Your task to perform on an android device: change your default location settings in chrome Image 0: 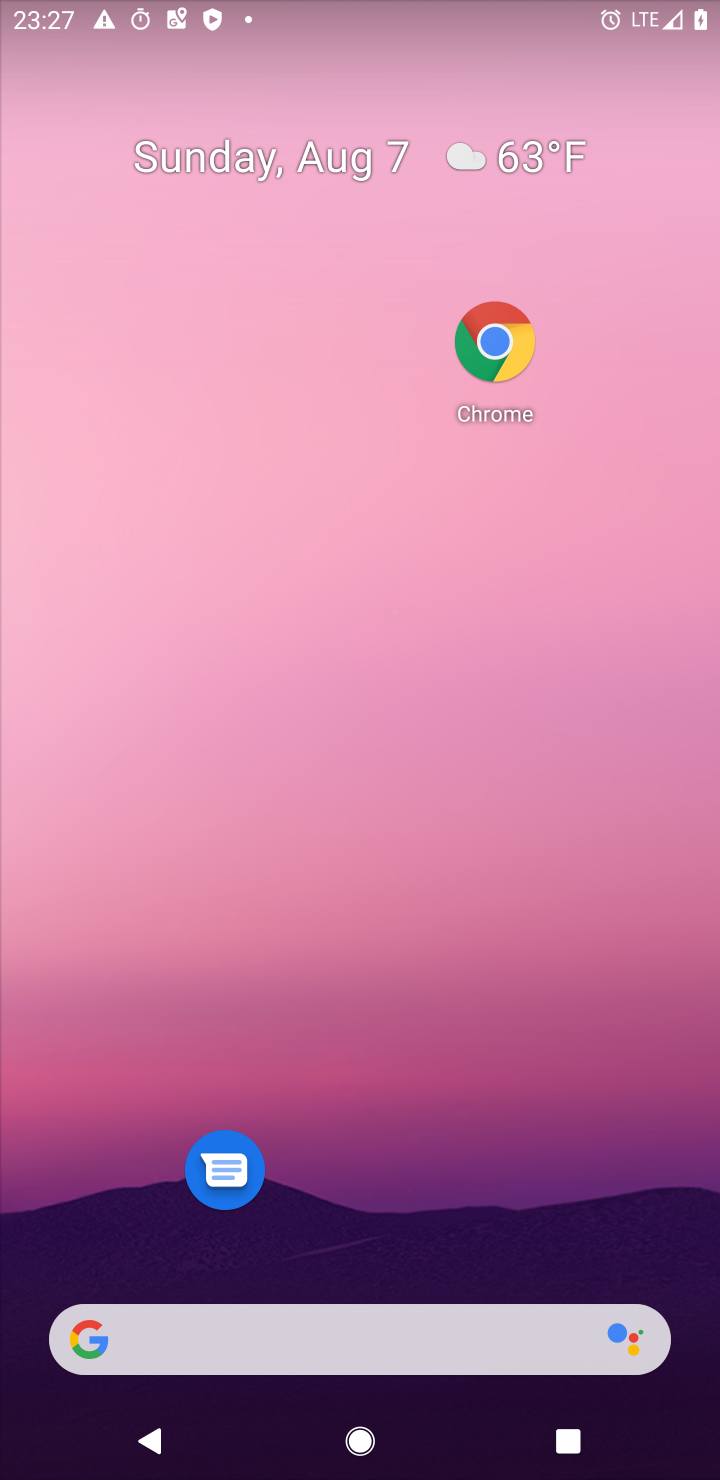
Step 0: drag from (433, 1350) to (496, 24)
Your task to perform on an android device: change your default location settings in chrome Image 1: 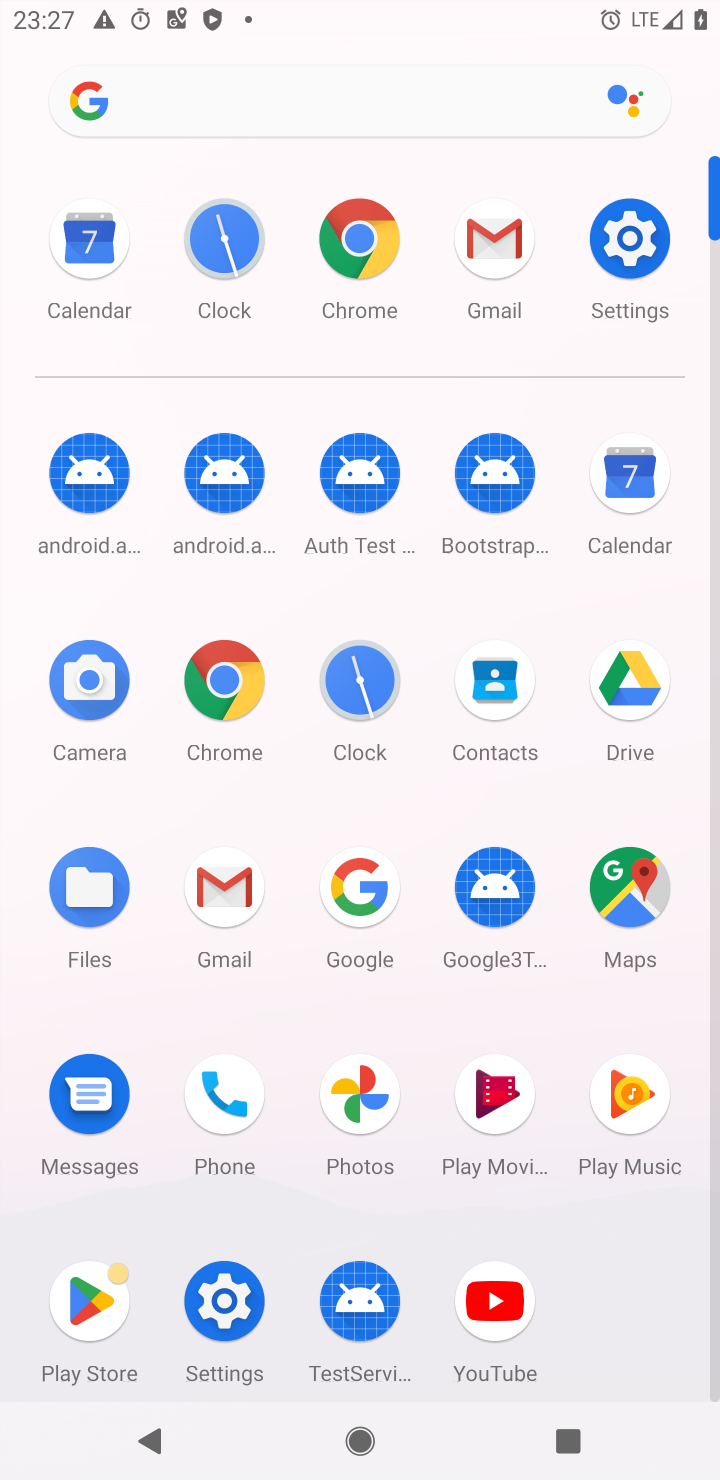
Step 1: click (206, 666)
Your task to perform on an android device: change your default location settings in chrome Image 2: 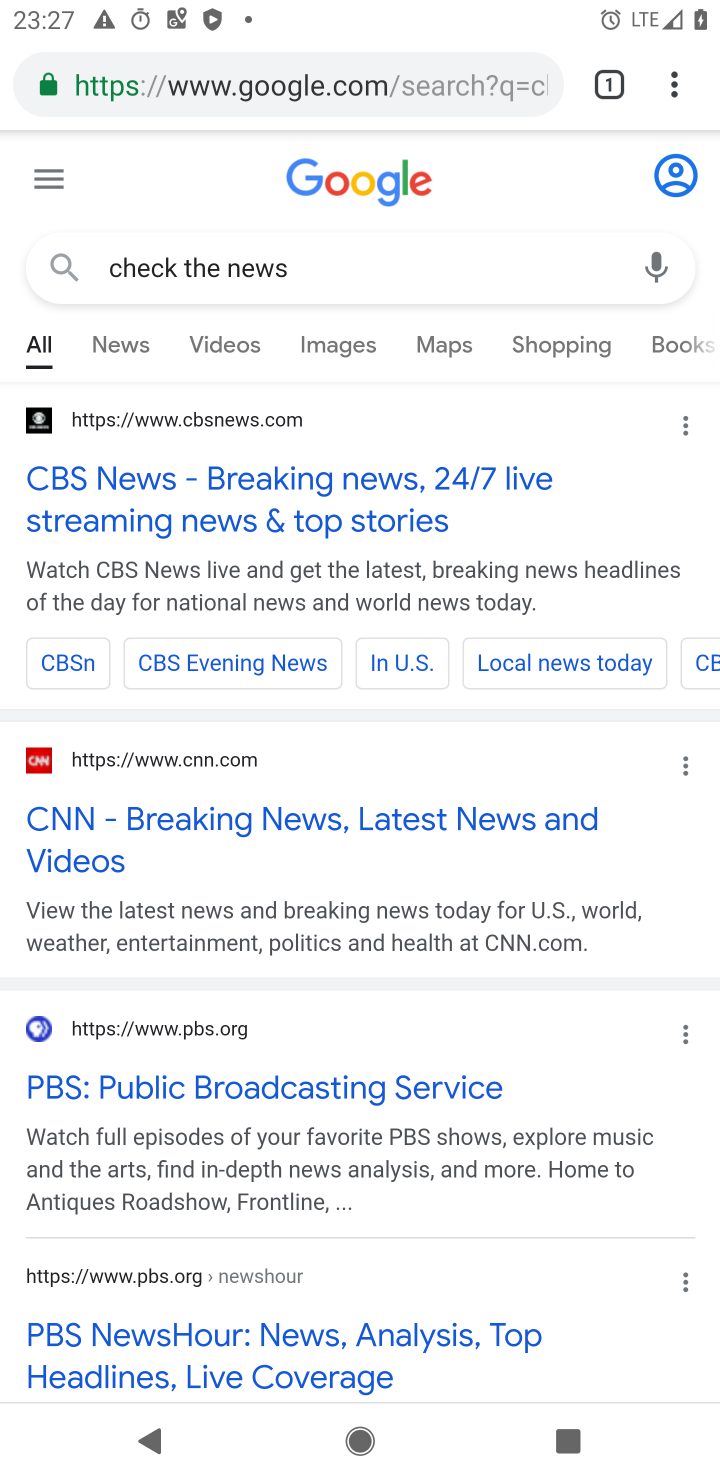
Step 2: click (665, 65)
Your task to perform on an android device: change your default location settings in chrome Image 3: 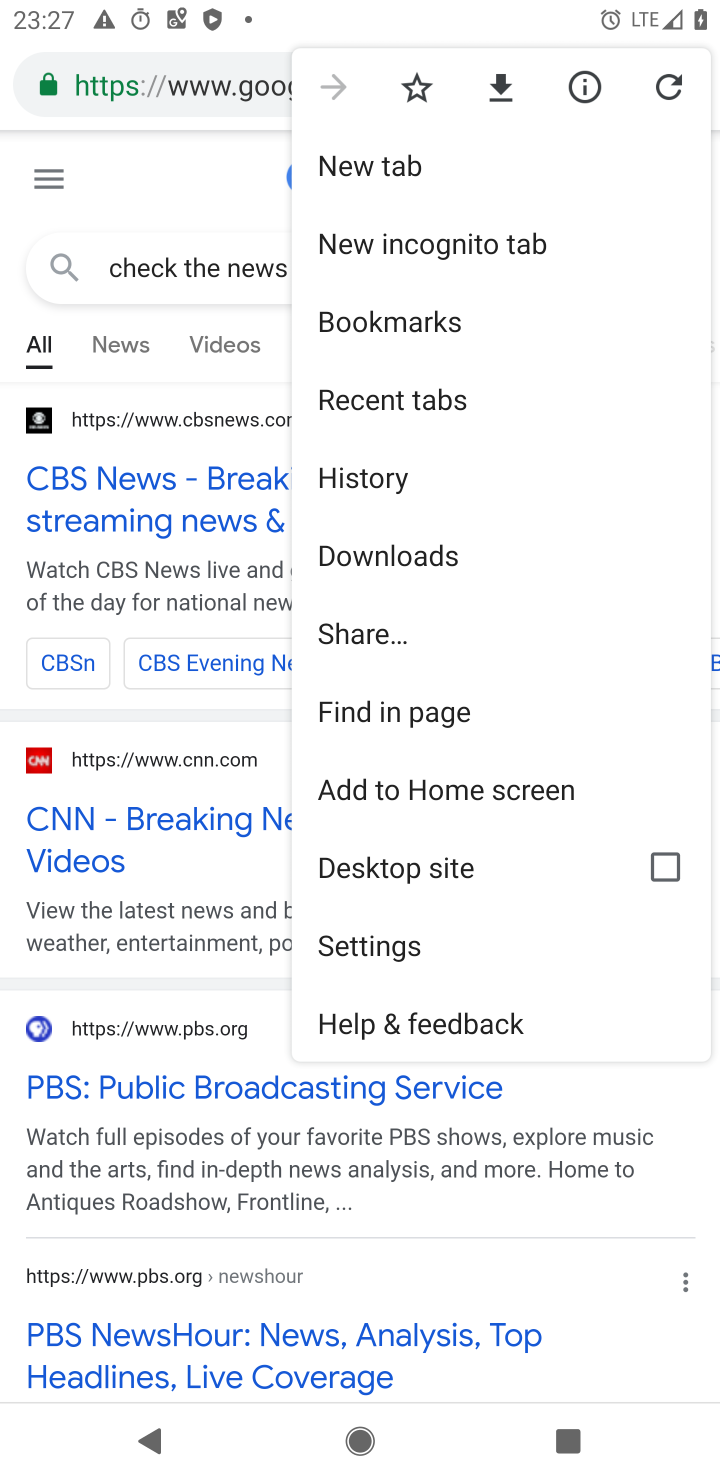
Step 3: click (395, 948)
Your task to perform on an android device: change your default location settings in chrome Image 4: 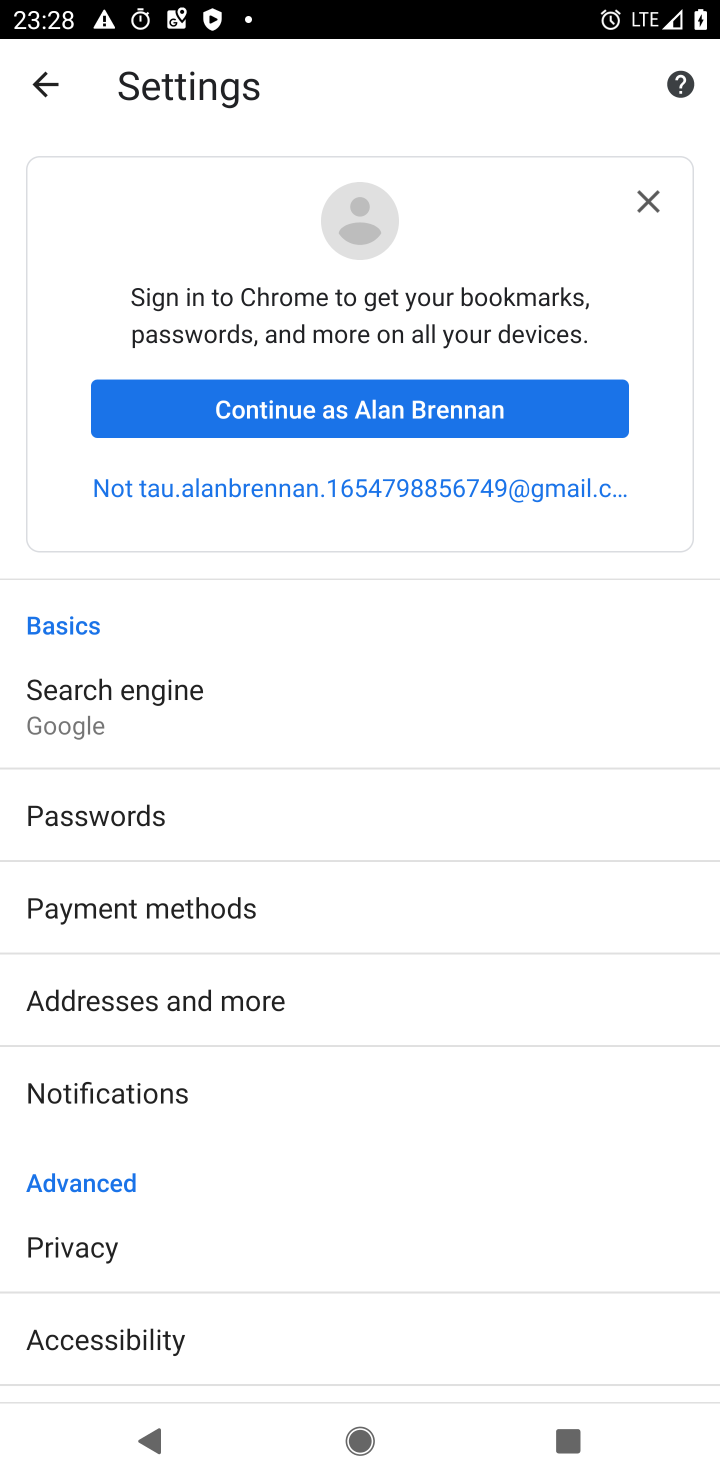
Step 4: drag from (380, 1235) to (444, 457)
Your task to perform on an android device: change your default location settings in chrome Image 5: 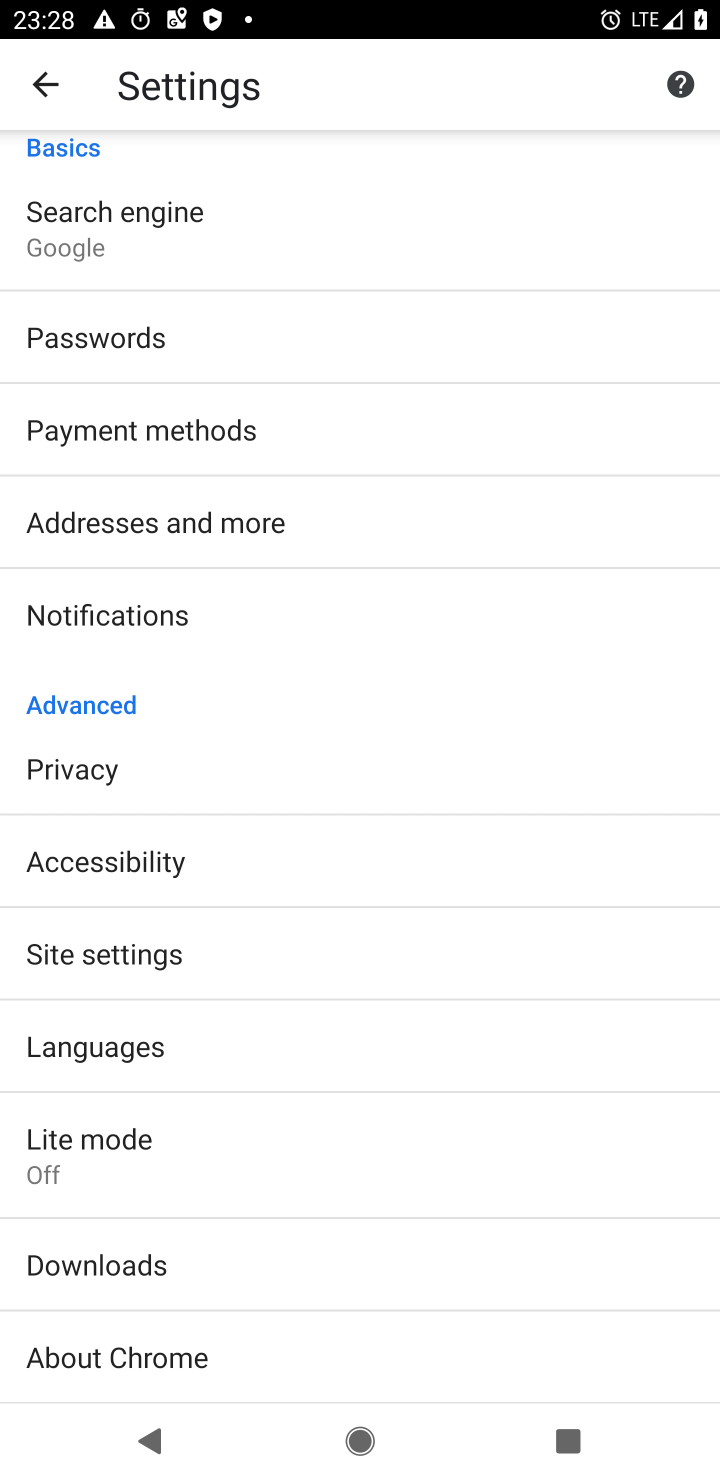
Step 5: click (237, 954)
Your task to perform on an android device: change your default location settings in chrome Image 6: 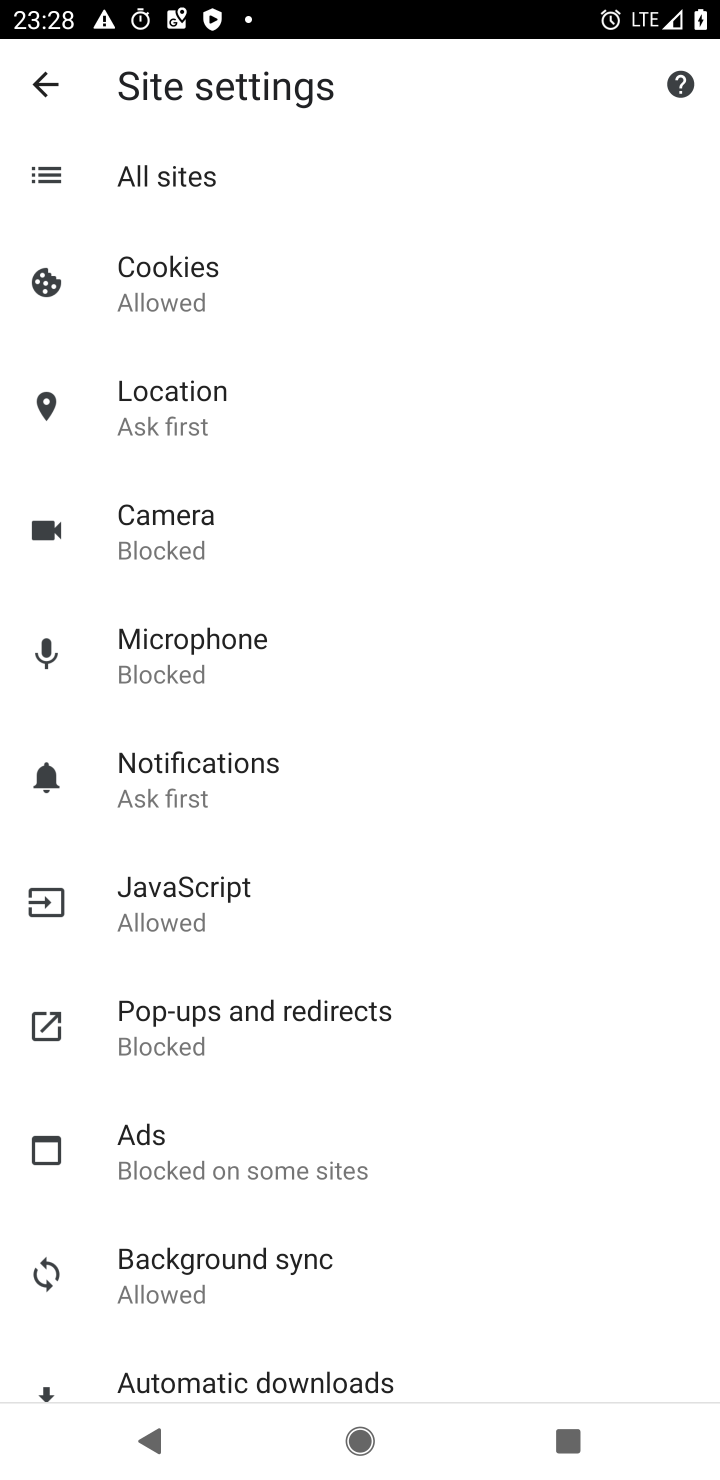
Step 6: click (247, 418)
Your task to perform on an android device: change your default location settings in chrome Image 7: 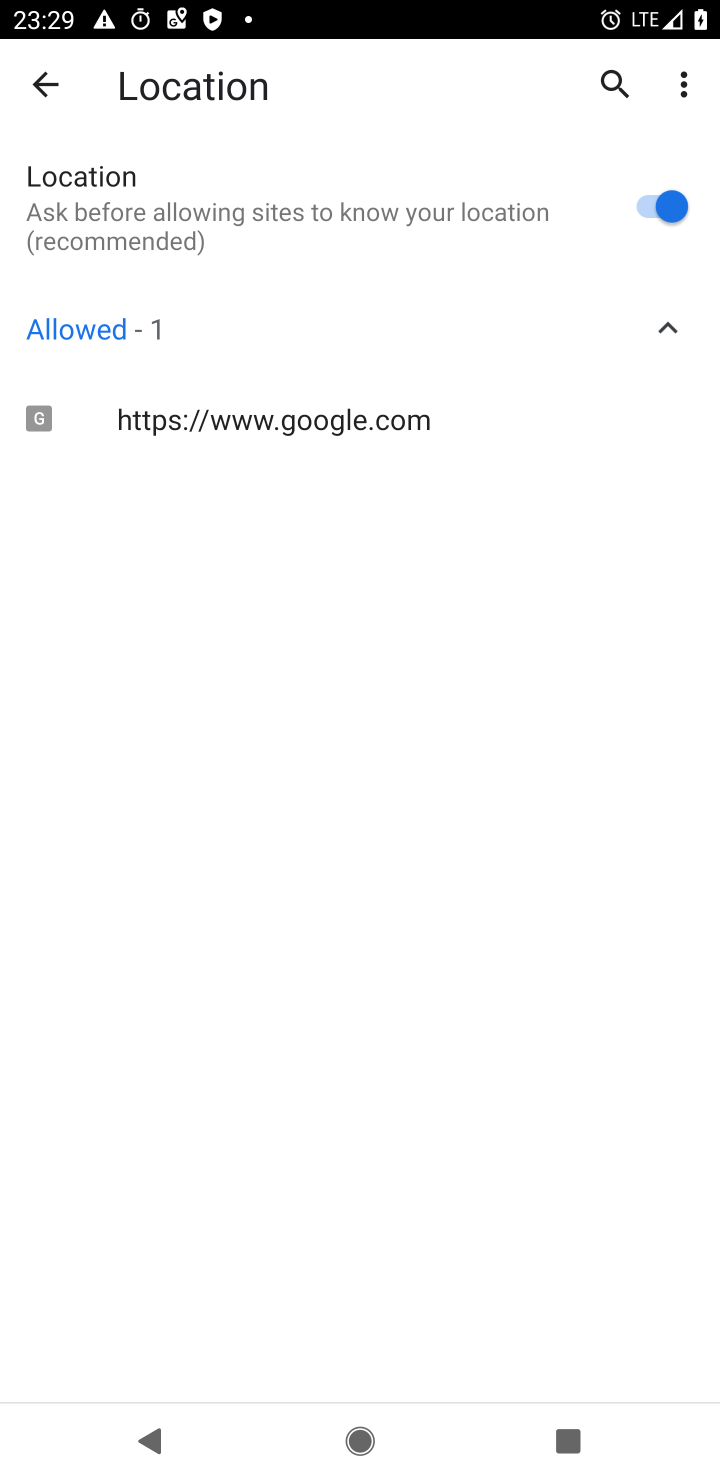
Step 7: task complete